Your task to perform on an android device: Clear the shopping cart on ebay. Search for dell xps on ebay, select the first entry, add it to the cart, then select checkout. Image 0: 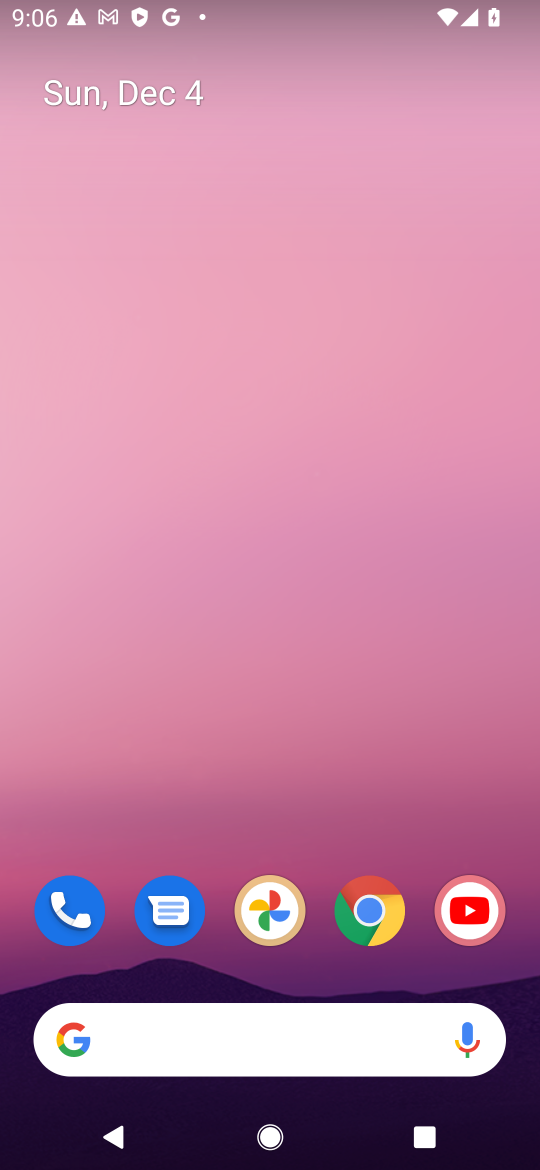
Step 0: drag from (357, 1108) to (421, 31)
Your task to perform on an android device: Clear the shopping cart on ebay. Search for dell xps on ebay, select the first entry, add it to the cart, then select checkout. Image 1: 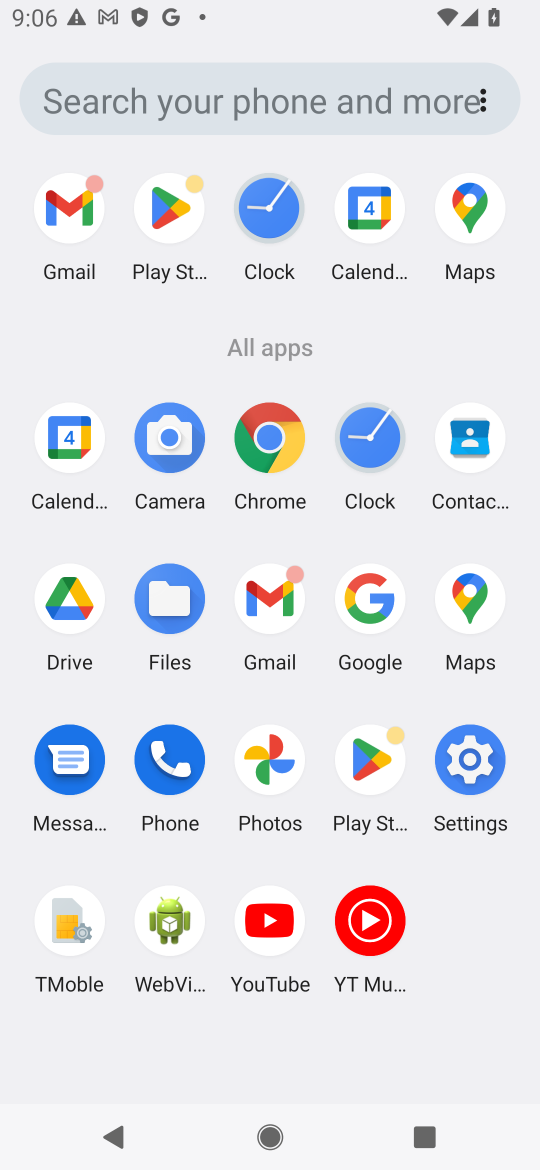
Step 1: click (269, 441)
Your task to perform on an android device: Clear the shopping cart on ebay. Search for dell xps on ebay, select the first entry, add it to the cart, then select checkout. Image 2: 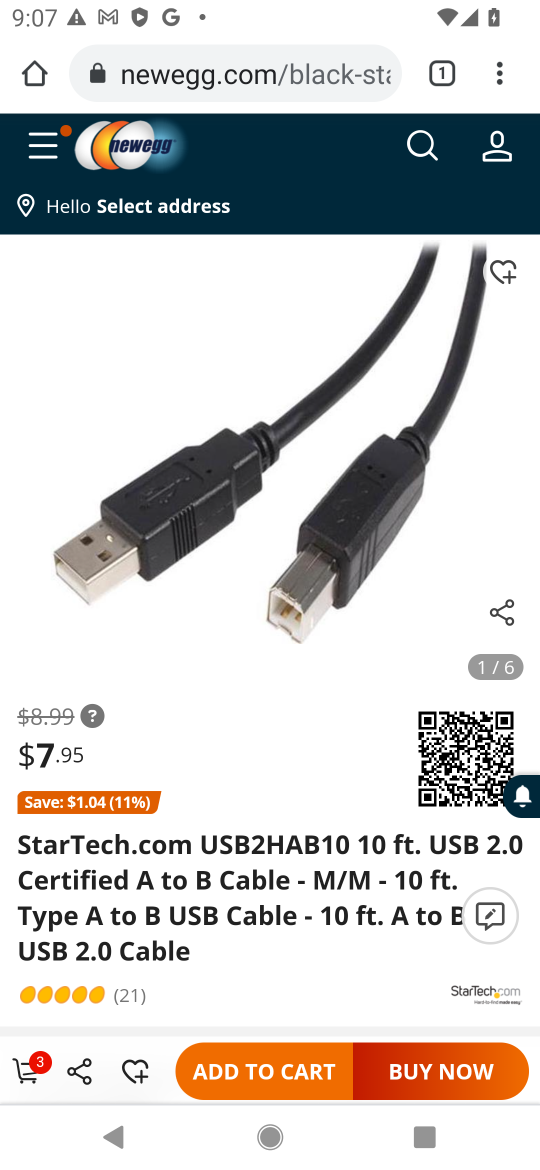
Step 2: click (250, 77)
Your task to perform on an android device: Clear the shopping cart on ebay. Search for dell xps on ebay, select the first entry, add it to the cart, then select checkout. Image 3: 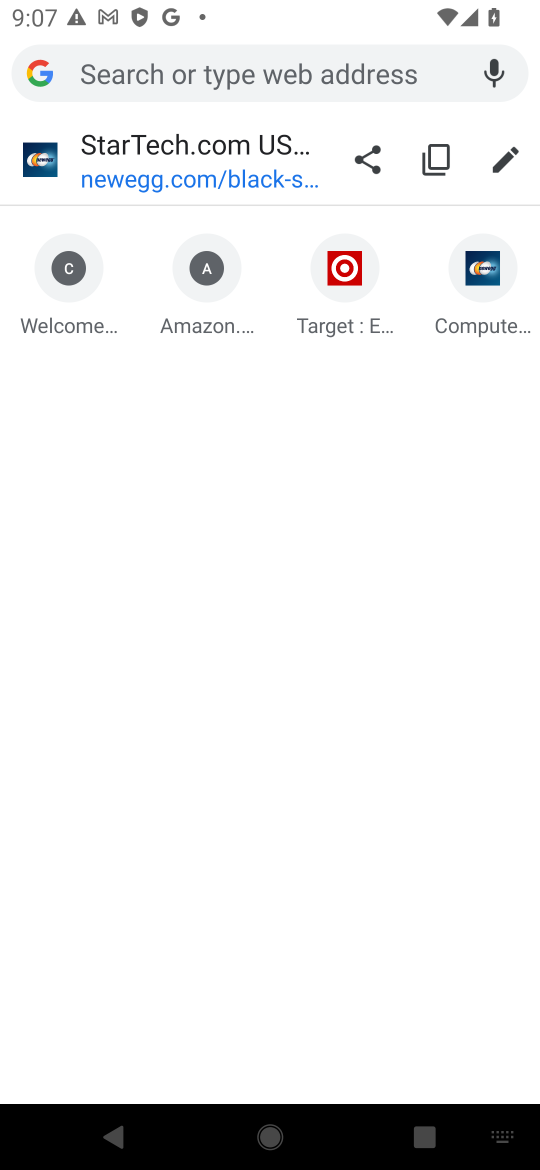
Step 3: type "ebay"
Your task to perform on an android device: Clear the shopping cart on ebay. Search for dell xps on ebay, select the first entry, add it to the cart, then select checkout. Image 4: 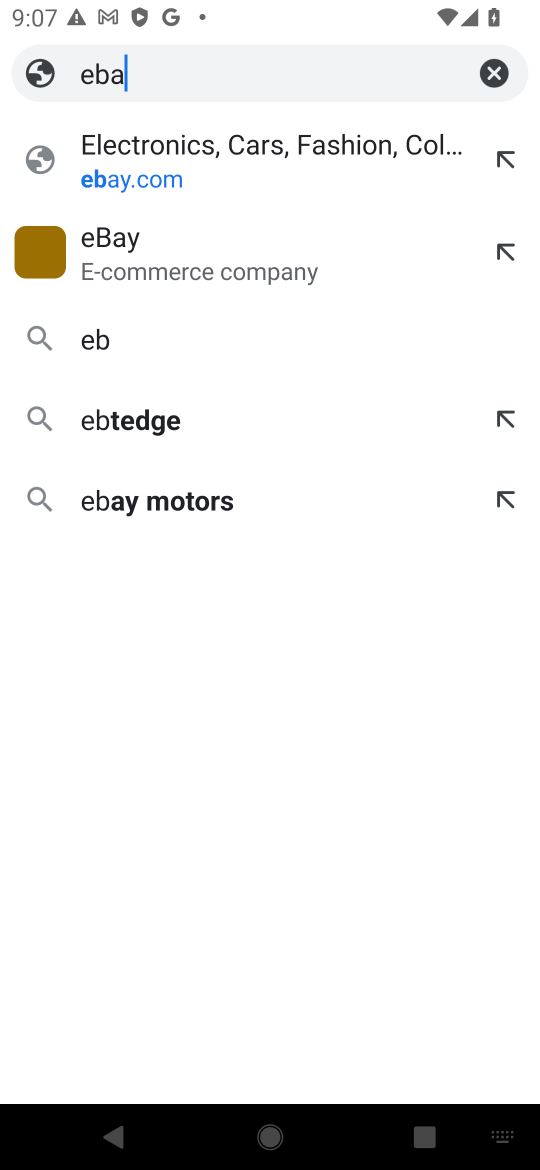
Step 4: type ""
Your task to perform on an android device: Clear the shopping cart on ebay. Search for dell xps on ebay, select the first entry, add it to the cart, then select checkout. Image 5: 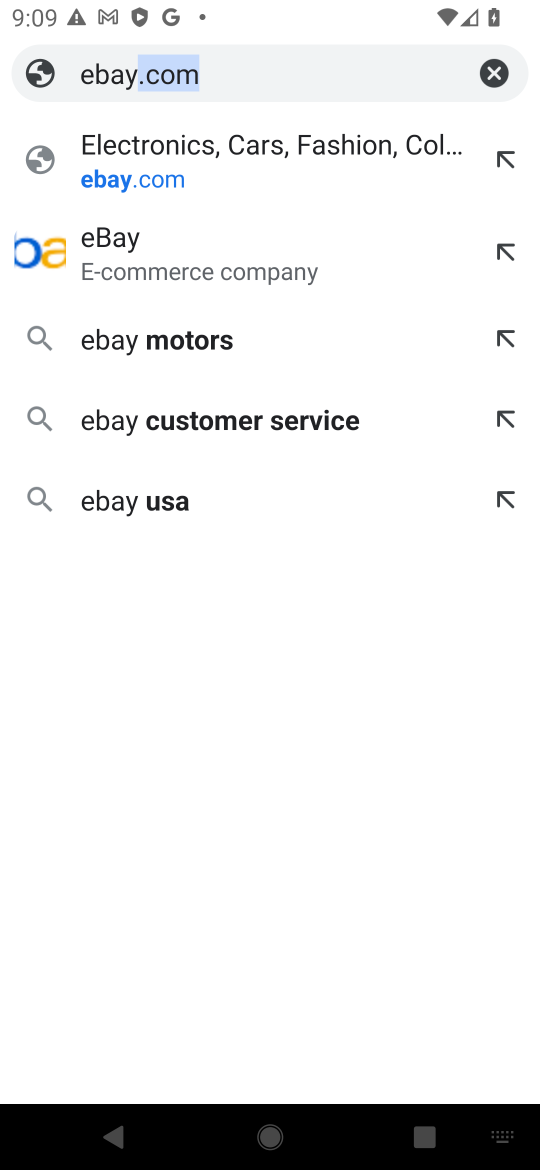
Step 5: click (102, 174)
Your task to perform on an android device: Clear the shopping cart on ebay. Search for dell xps on ebay, select the first entry, add it to the cart, then select checkout. Image 6: 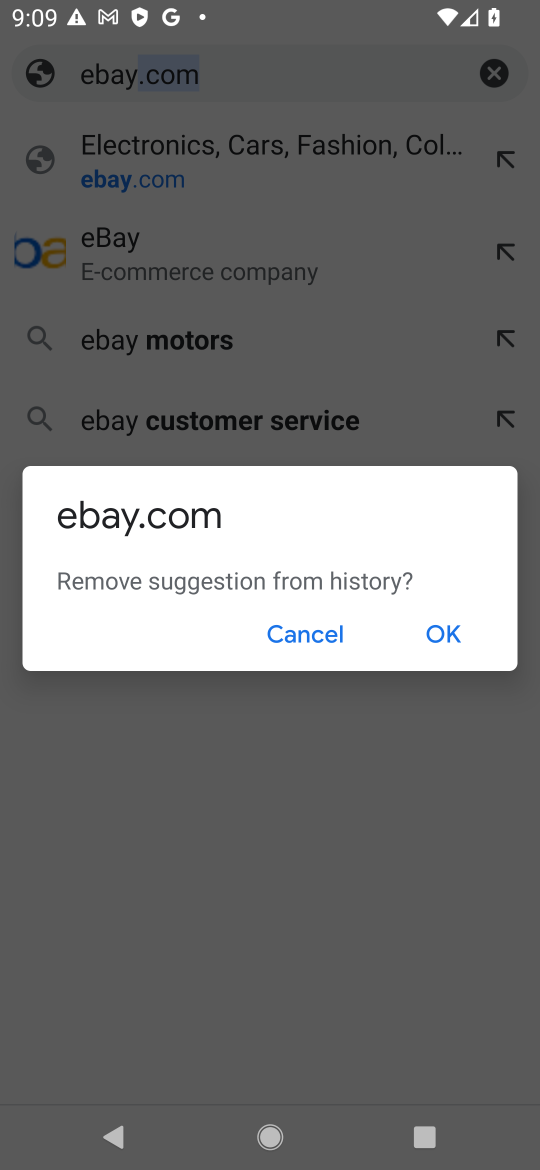
Step 6: click (447, 626)
Your task to perform on an android device: Clear the shopping cart on ebay. Search for dell xps on ebay, select the first entry, add it to the cart, then select checkout. Image 7: 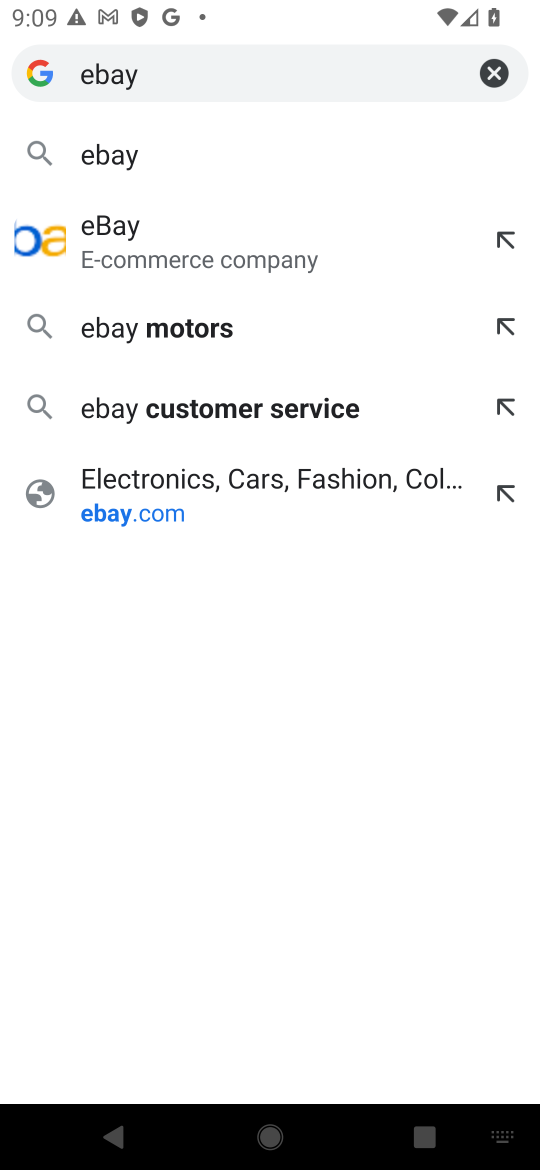
Step 7: click (132, 510)
Your task to perform on an android device: Clear the shopping cart on ebay. Search for dell xps on ebay, select the first entry, add it to the cart, then select checkout. Image 8: 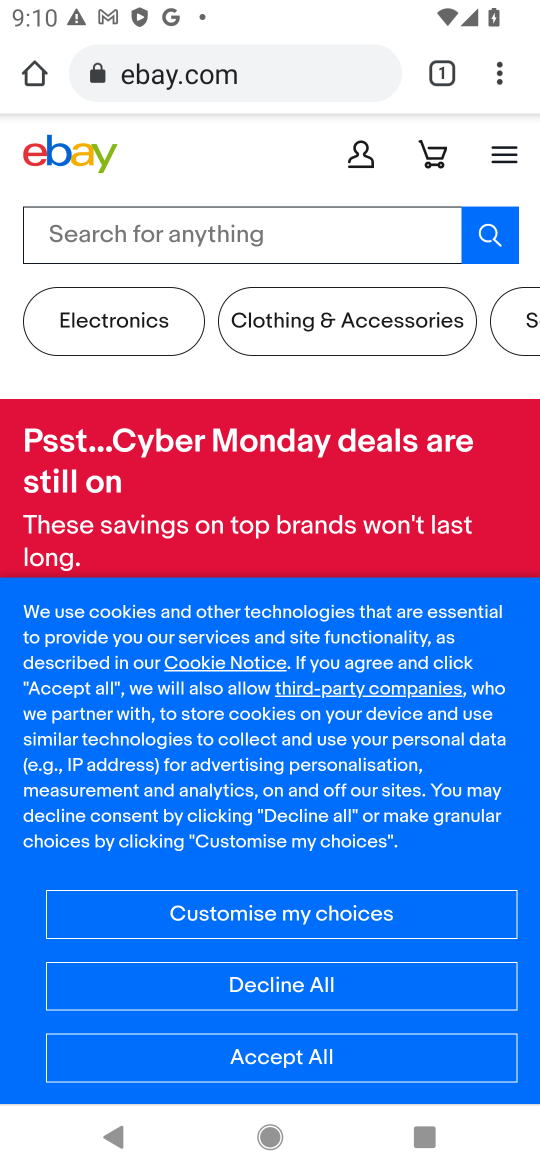
Step 8: click (426, 154)
Your task to perform on an android device: Clear the shopping cart on ebay. Search for dell xps on ebay, select the first entry, add it to the cart, then select checkout. Image 9: 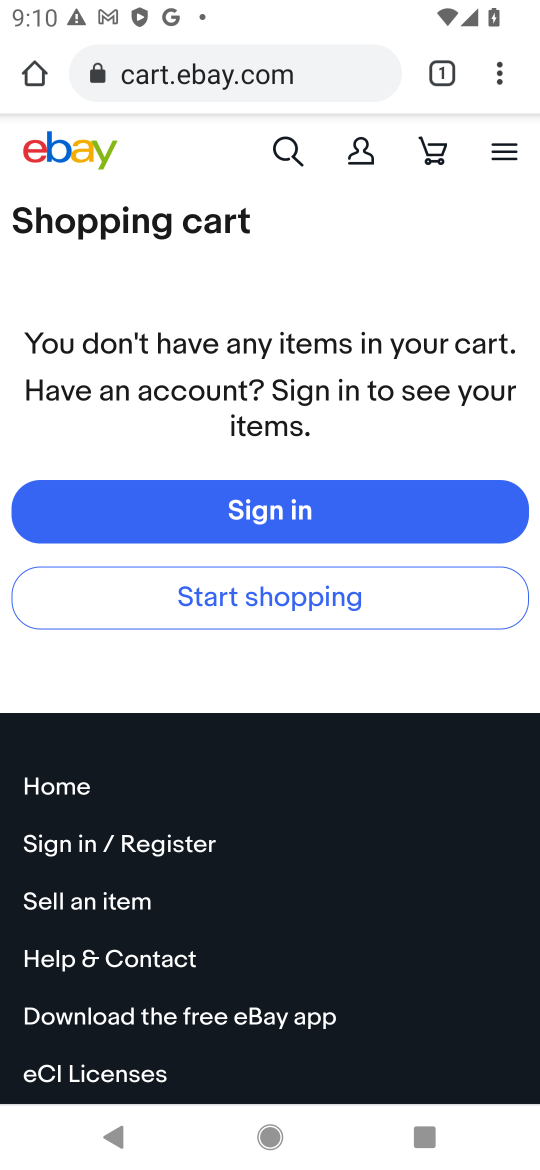
Step 9: click (284, 144)
Your task to perform on an android device: Clear the shopping cart on ebay. Search for dell xps on ebay, select the first entry, add it to the cart, then select checkout. Image 10: 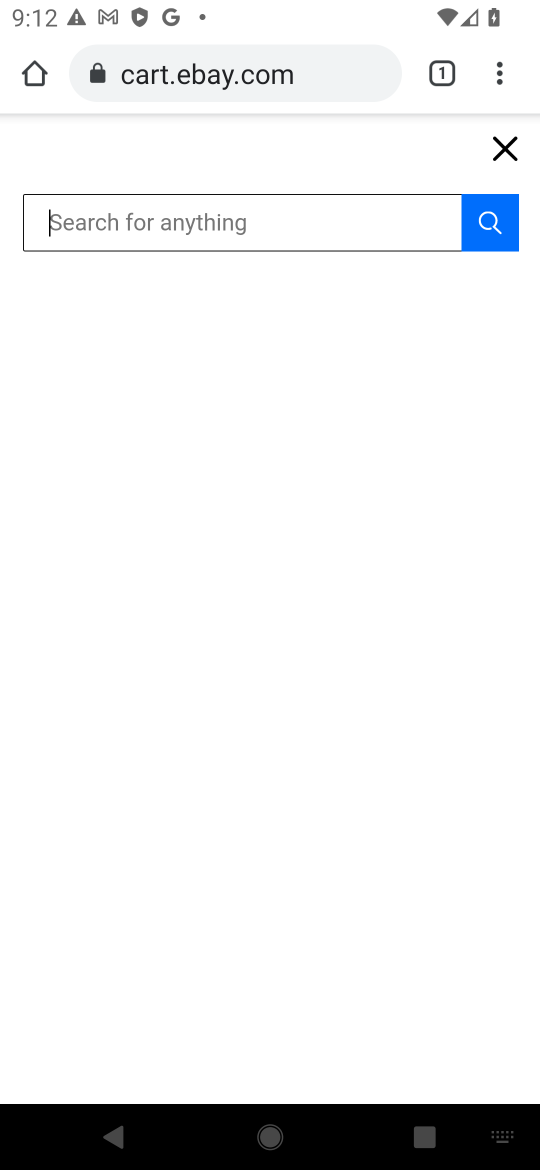
Step 10: type "dell xps"
Your task to perform on an android device: Clear the shopping cart on ebay. Search for dell xps on ebay, select the first entry, add it to the cart, then select checkout. Image 11: 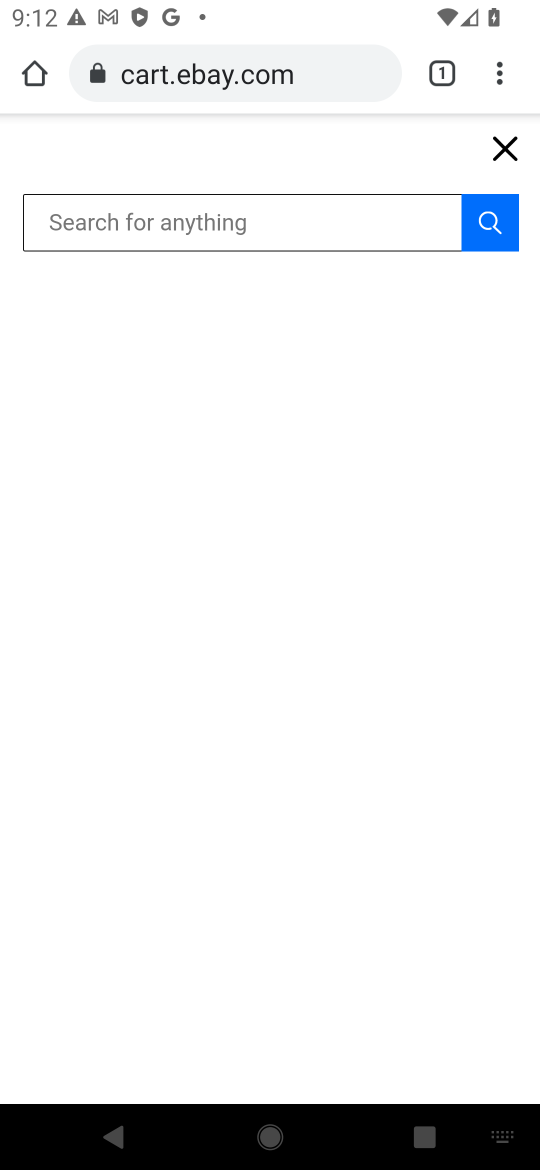
Step 11: type ""
Your task to perform on an android device: Clear the shopping cart on ebay. Search for dell xps on ebay, select the first entry, add it to the cart, then select checkout. Image 12: 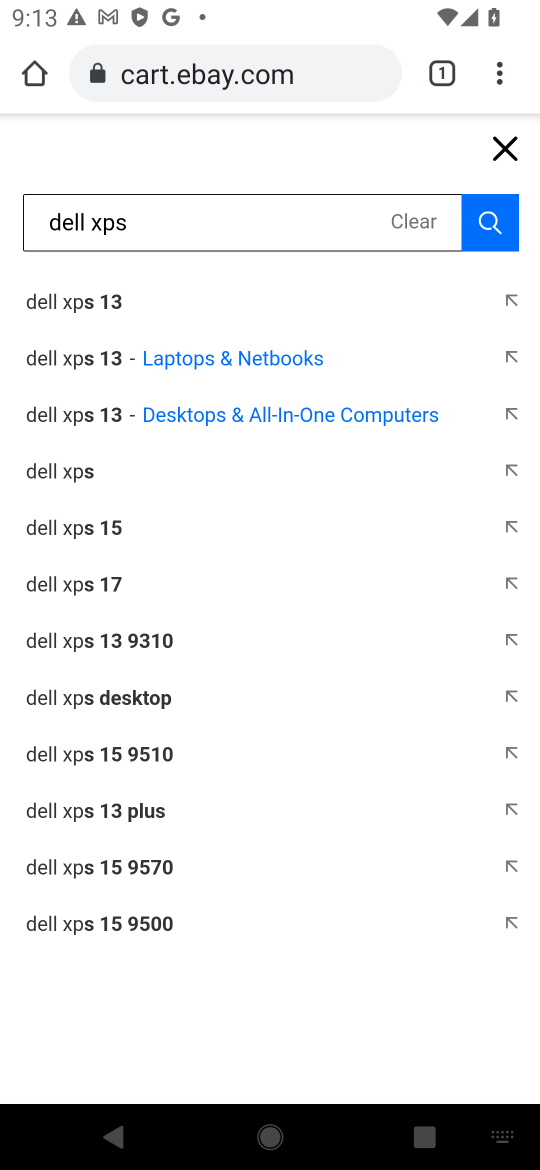
Step 12: click (477, 231)
Your task to perform on an android device: Clear the shopping cart on ebay. Search for dell xps on ebay, select the first entry, add it to the cart, then select checkout. Image 13: 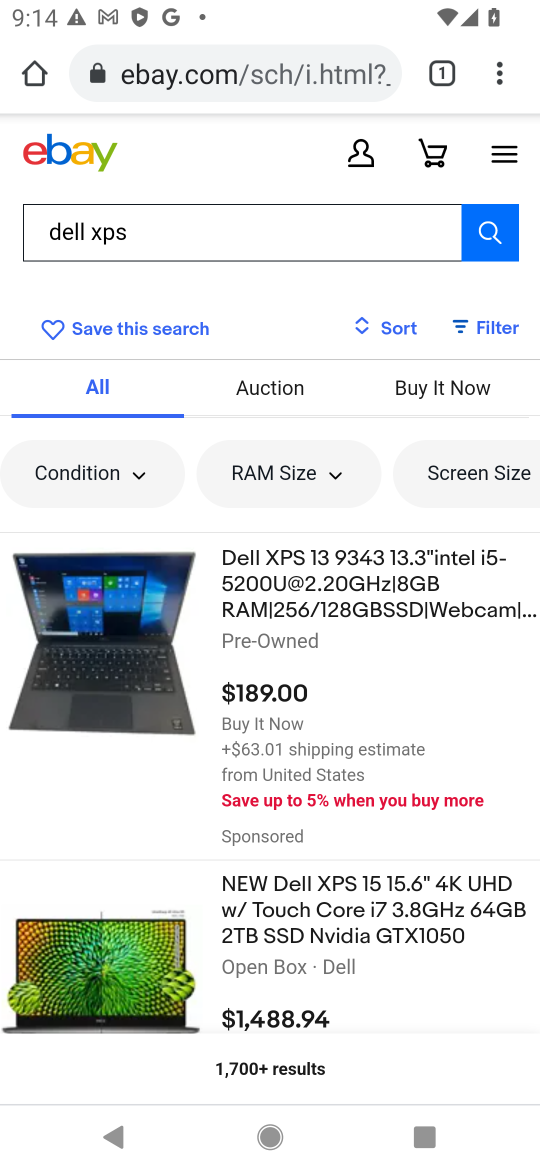
Step 13: click (146, 613)
Your task to perform on an android device: Clear the shopping cart on ebay. Search for dell xps on ebay, select the first entry, add it to the cart, then select checkout. Image 14: 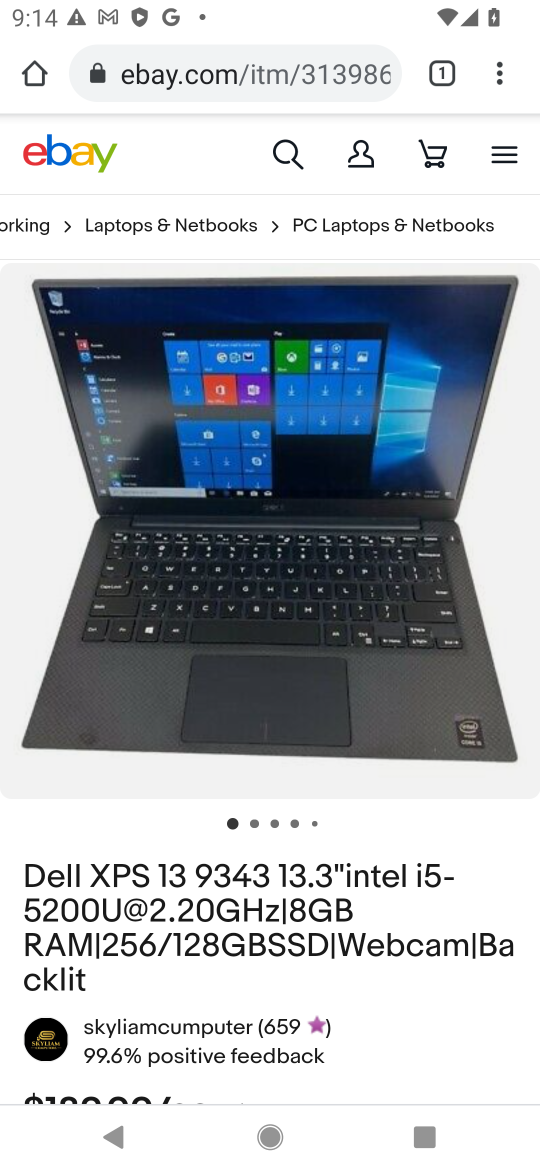
Step 14: drag from (329, 911) to (292, 185)
Your task to perform on an android device: Clear the shopping cart on ebay. Search for dell xps on ebay, select the first entry, add it to the cart, then select checkout. Image 15: 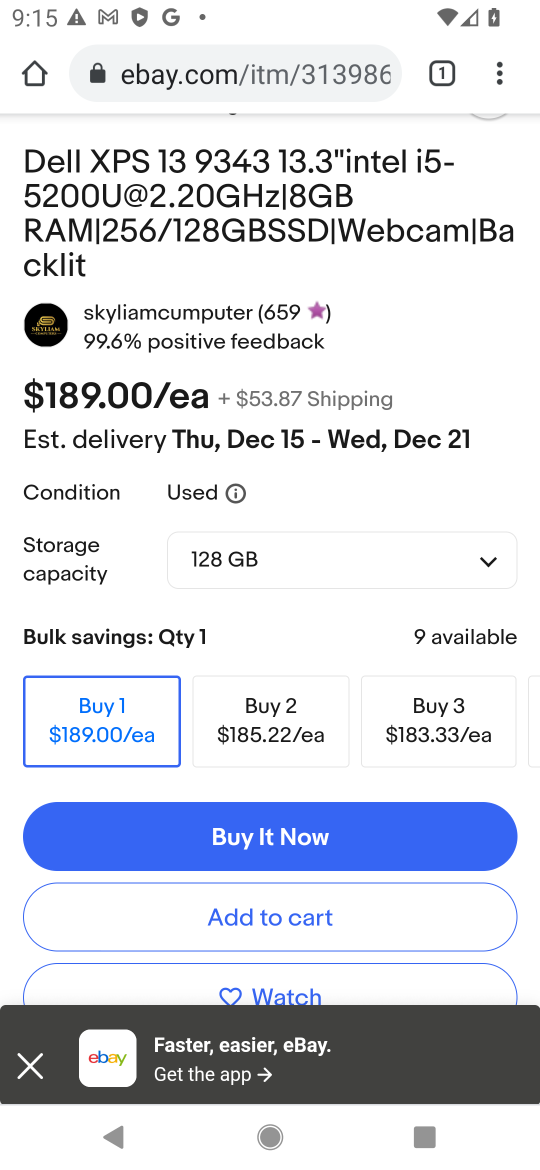
Step 15: click (299, 921)
Your task to perform on an android device: Clear the shopping cart on ebay. Search for dell xps on ebay, select the first entry, add it to the cart, then select checkout. Image 16: 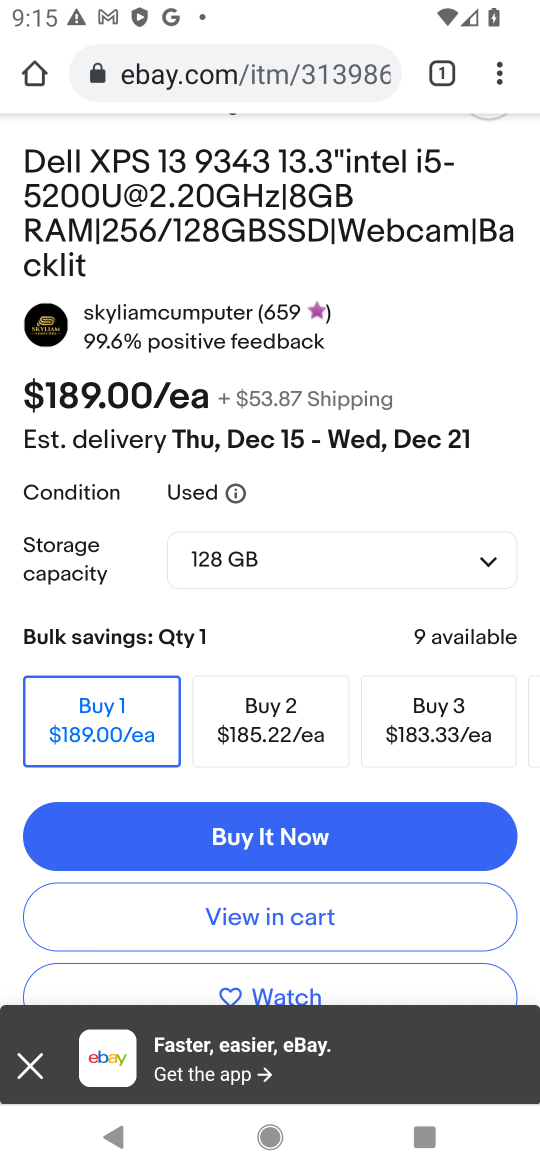
Step 16: task complete